Your task to perform on an android device: turn off wifi Image 0: 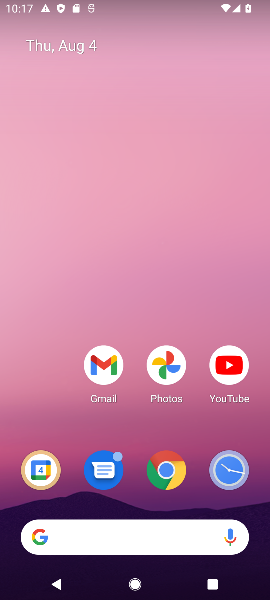
Step 0: drag from (146, 440) to (130, 164)
Your task to perform on an android device: turn off wifi Image 1: 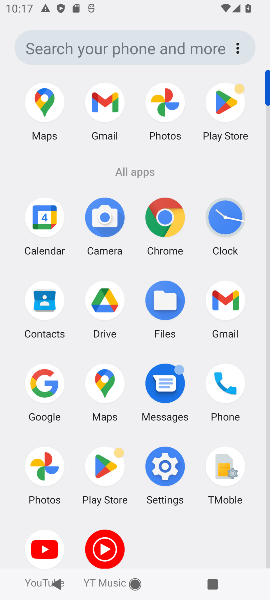
Step 1: click (168, 464)
Your task to perform on an android device: turn off wifi Image 2: 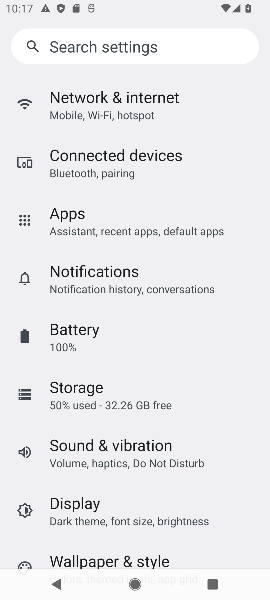
Step 2: click (130, 114)
Your task to perform on an android device: turn off wifi Image 3: 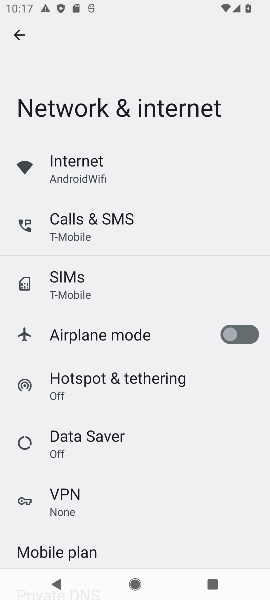
Step 3: click (66, 165)
Your task to perform on an android device: turn off wifi Image 4: 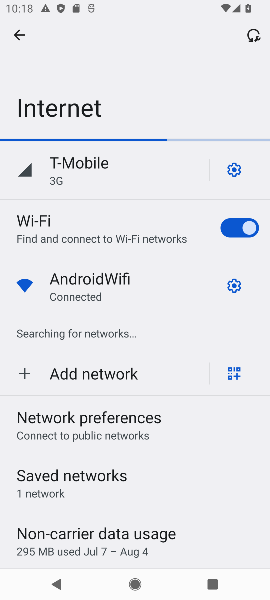
Step 4: click (243, 229)
Your task to perform on an android device: turn off wifi Image 5: 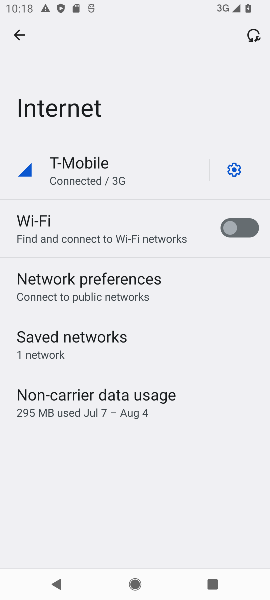
Step 5: task complete